Your task to perform on an android device: Open ESPN.com Image 0: 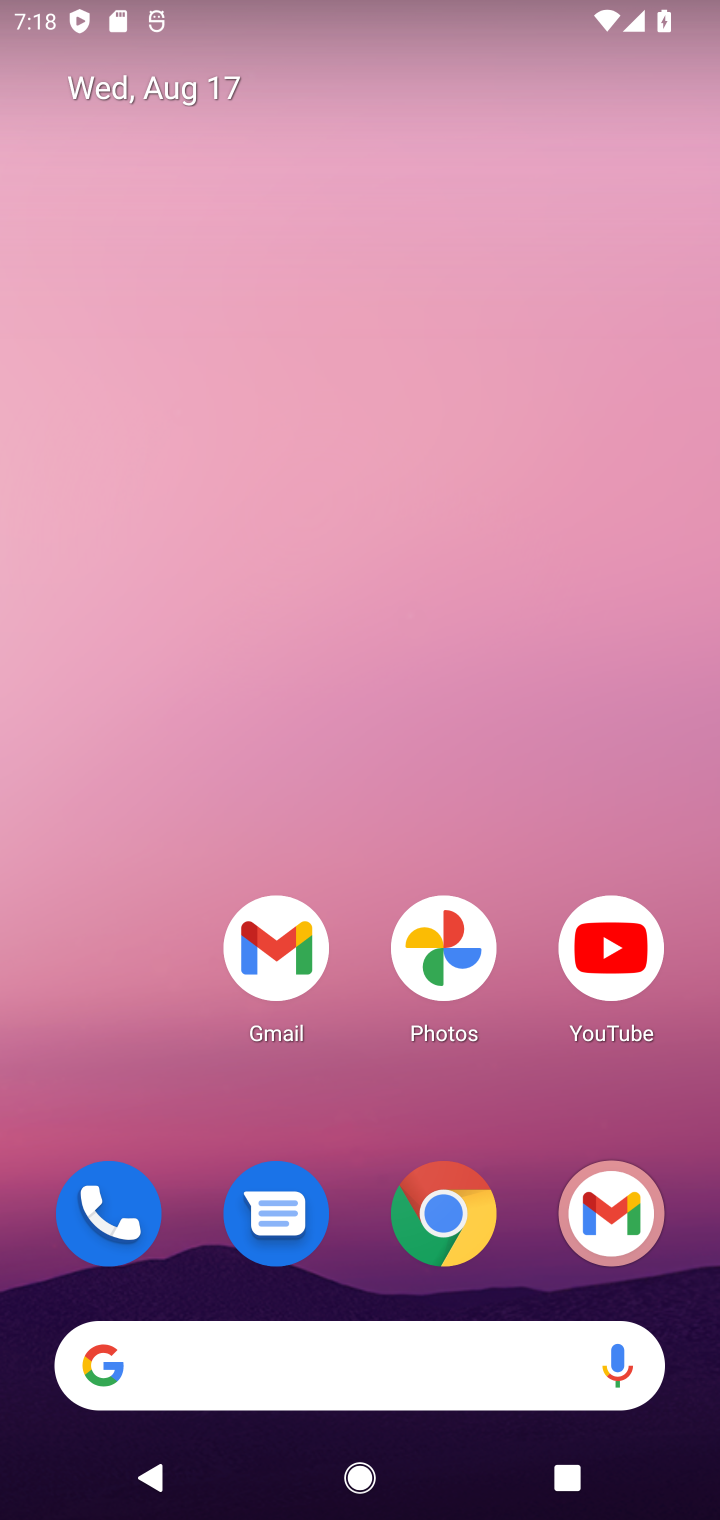
Step 0: click (410, 1345)
Your task to perform on an android device: Open ESPN.com Image 1: 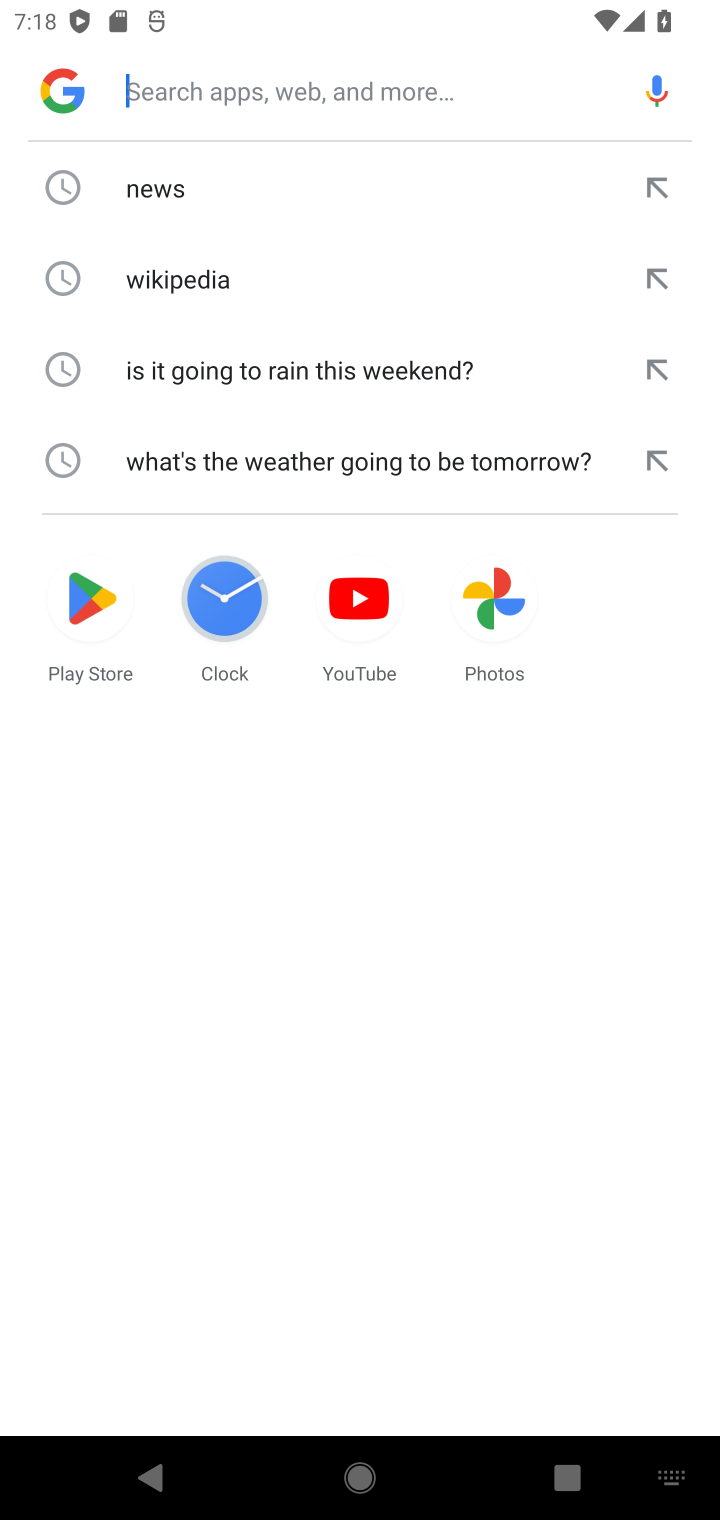
Step 1: type "espn.com"
Your task to perform on an android device: Open ESPN.com Image 2: 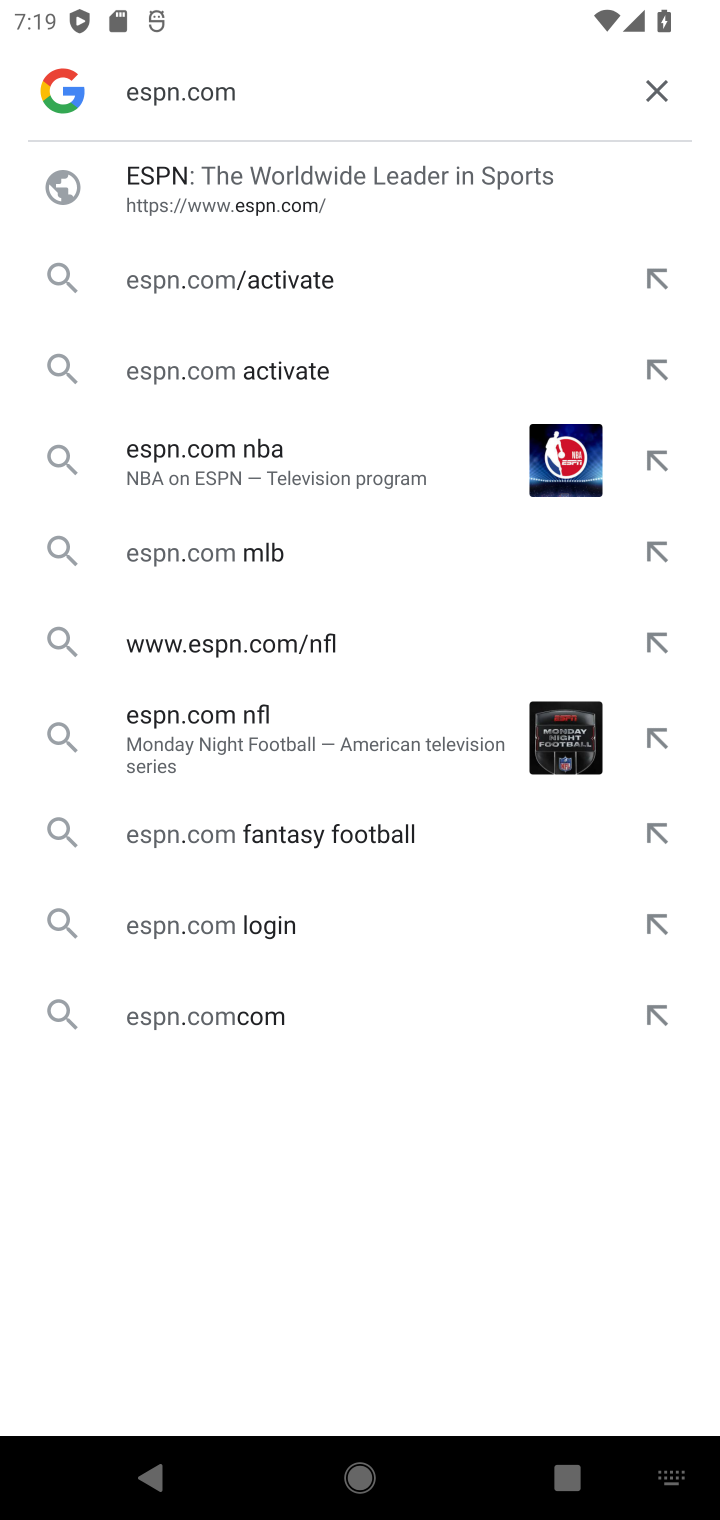
Step 2: click (271, 177)
Your task to perform on an android device: Open ESPN.com Image 3: 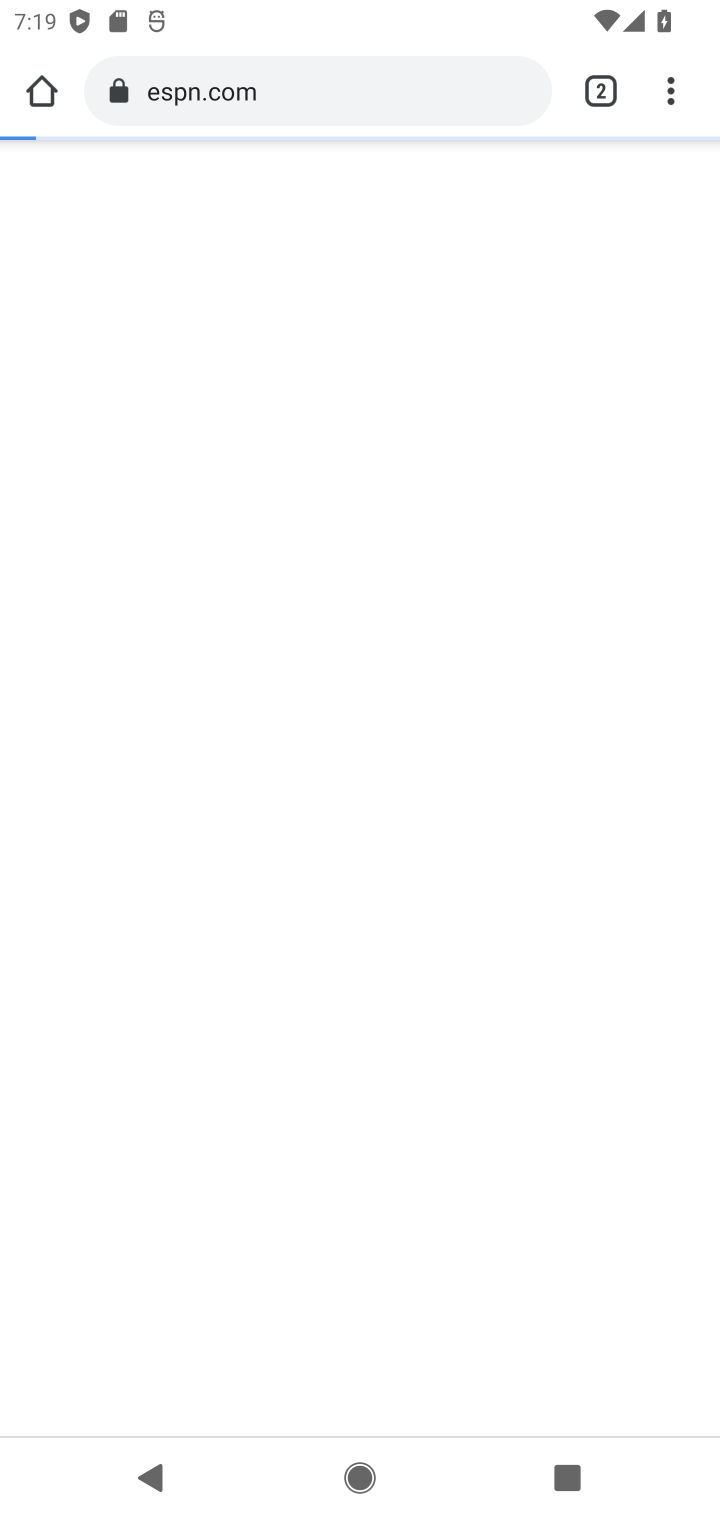
Step 3: task complete